Your task to perform on an android device: turn off wifi Image 0: 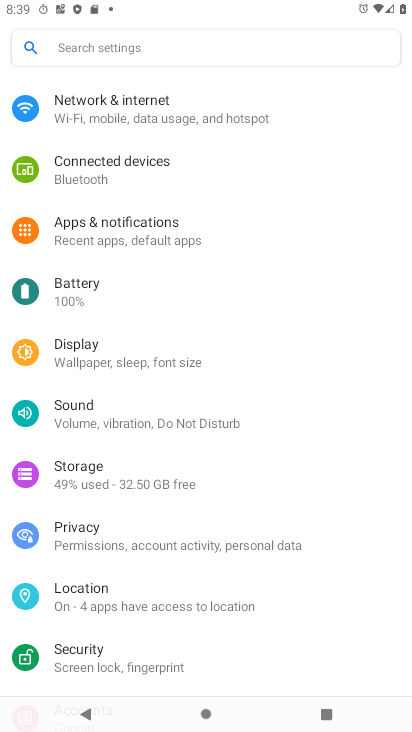
Step 0: press home button
Your task to perform on an android device: turn off wifi Image 1: 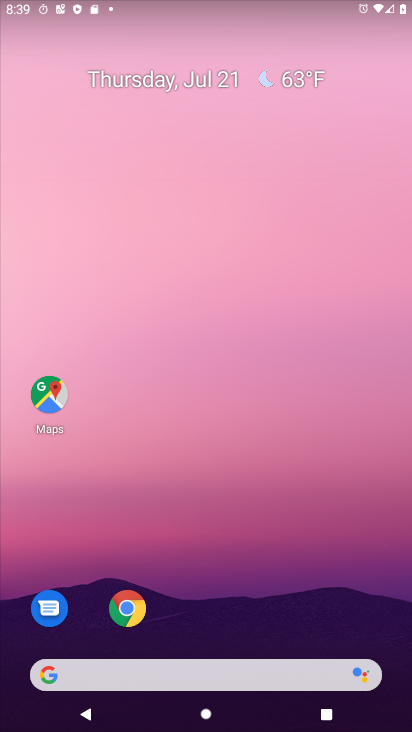
Step 1: drag from (382, 2) to (55, 718)
Your task to perform on an android device: turn off wifi Image 2: 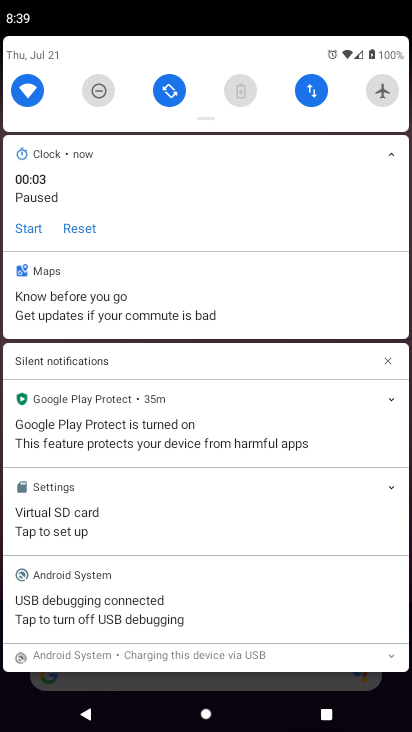
Step 2: drag from (206, 100) to (164, 467)
Your task to perform on an android device: turn off wifi Image 3: 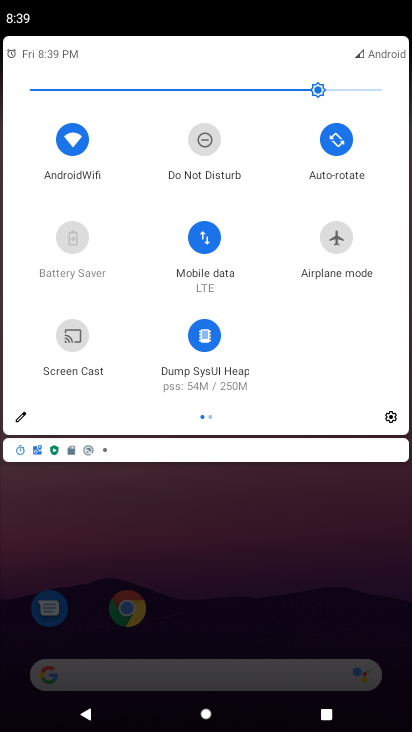
Step 3: click (79, 155)
Your task to perform on an android device: turn off wifi Image 4: 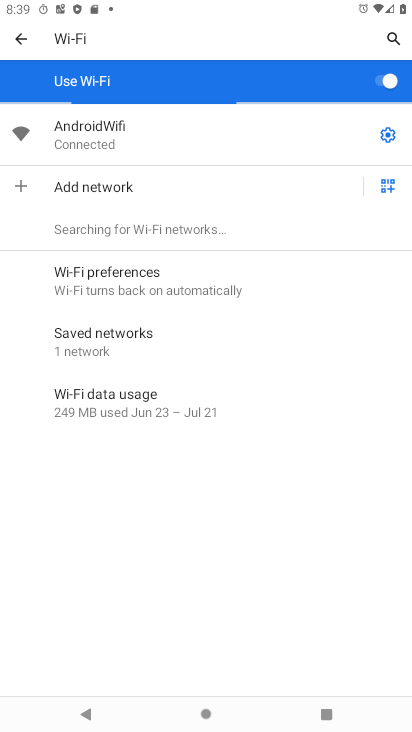
Step 4: click (321, 71)
Your task to perform on an android device: turn off wifi Image 5: 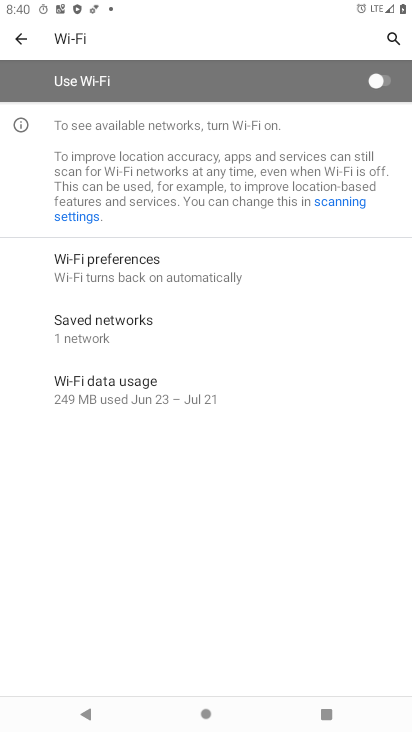
Step 5: task complete